Your task to perform on an android device: turn off airplane mode Image 0: 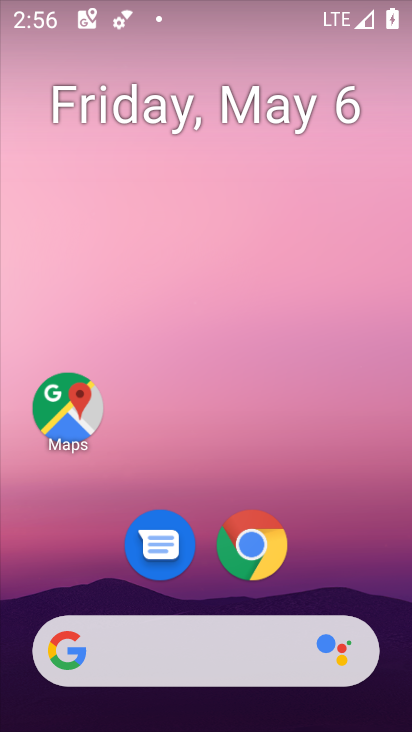
Step 0: drag from (400, 657) to (311, 158)
Your task to perform on an android device: turn off airplane mode Image 1: 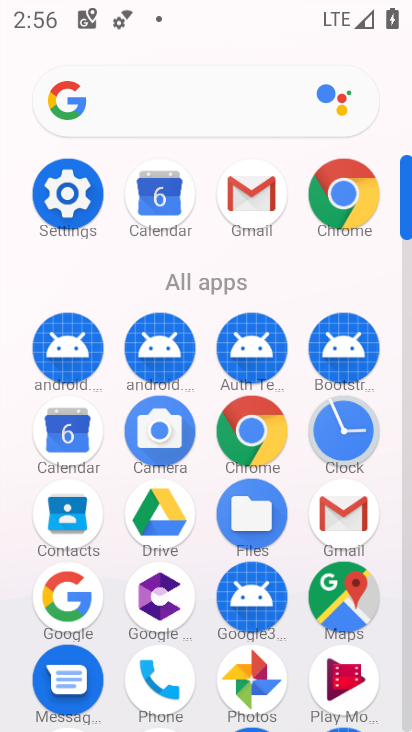
Step 1: click (66, 194)
Your task to perform on an android device: turn off airplane mode Image 2: 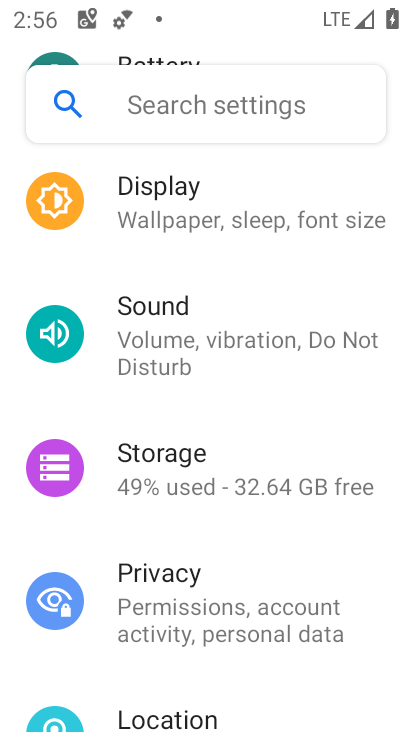
Step 2: drag from (369, 177) to (398, 600)
Your task to perform on an android device: turn off airplane mode Image 3: 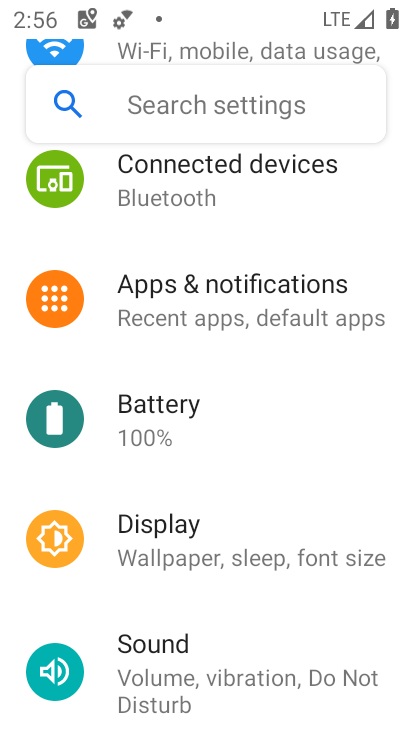
Step 3: click (243, 47)
Your task to perform on an android device: turn off airplane mode Image 4: 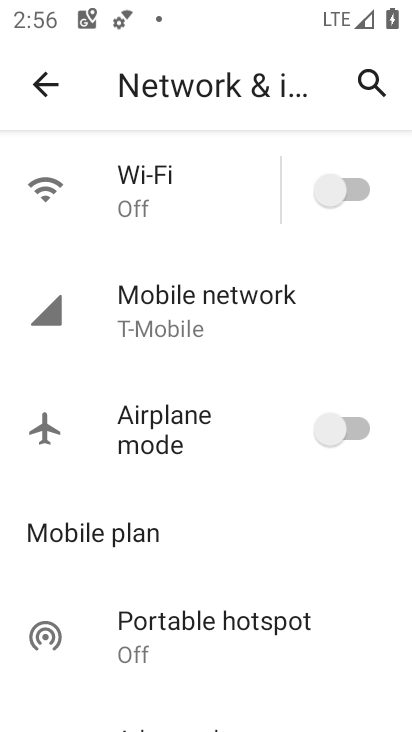
Step 4: task complete